Your task to perform on an android device: What's the weather today? Image 0: 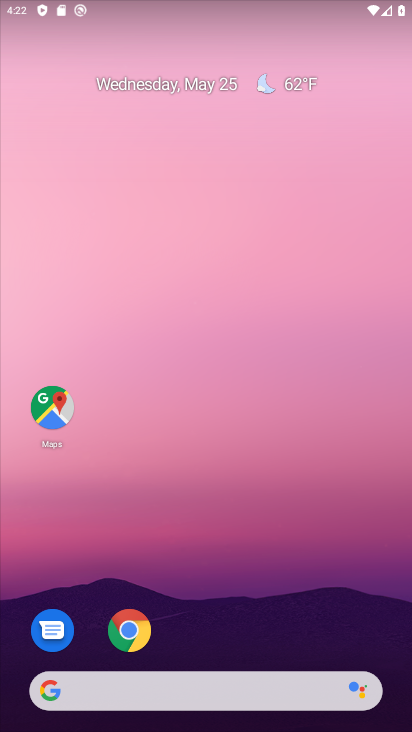
Step 0: click (263, 87)
Your task to perform on an android device: What's the weather today? Image 1: 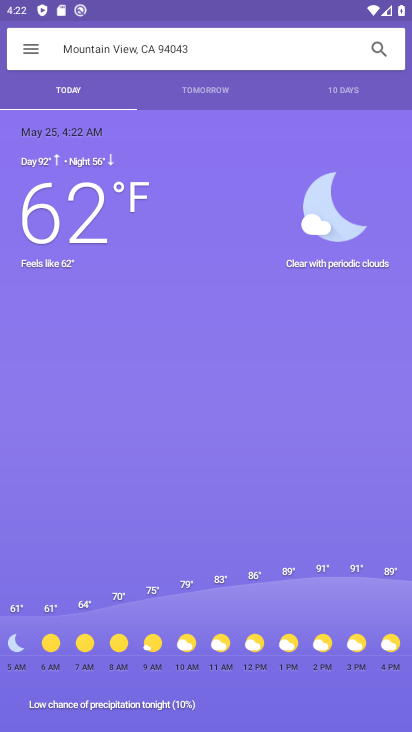
Step 1: task complete